Your task to perform on an android device: turn pop-ups on in chrome Image 0: 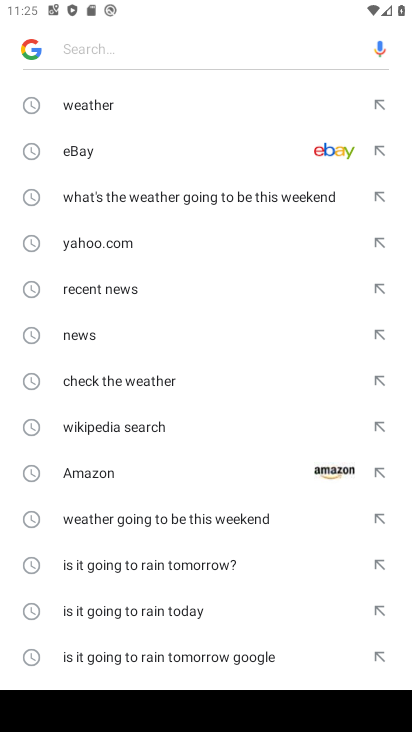
Step 0: press home button
Your task to perform on an android device: turn pop-ups on in chrome Image 1: 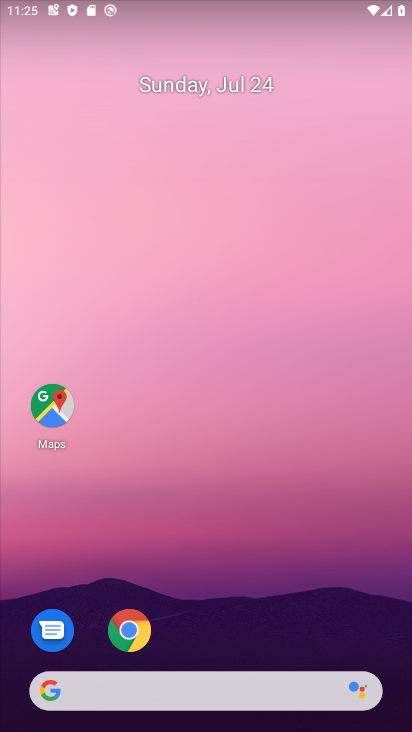
Step 1: click (131, 629)
Your task to perform on an android device: turn pop-ups on in chrome Image 2: 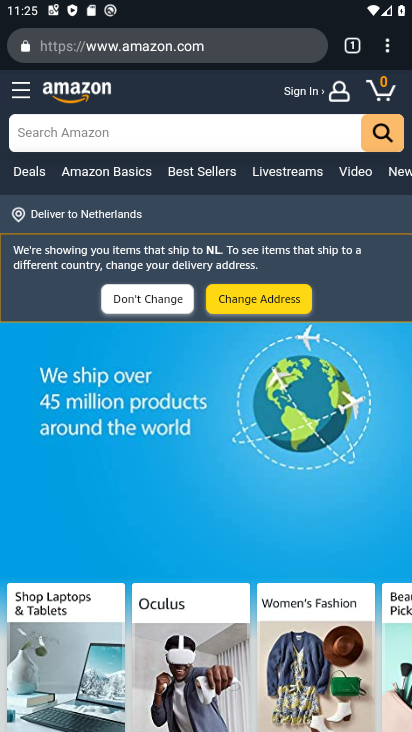
Step 2: click (390, 56)
Your task to perform on an android device: turn pop-ups on in chrome Image 3: 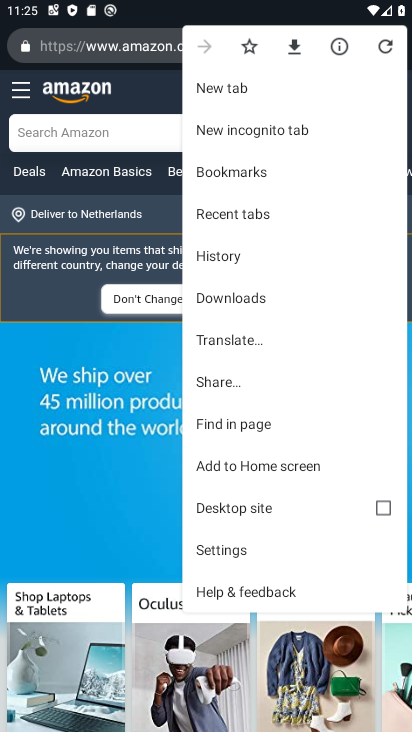
Step 3: click (212, 546)
Your task to perform on an android device: turn pop-ups on in chrome Image 4: 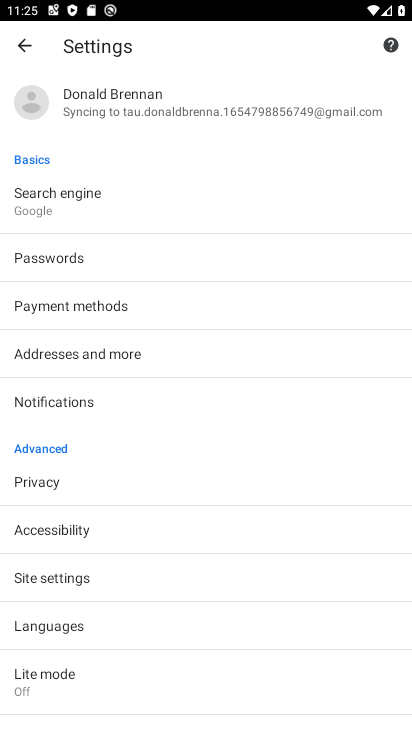
Step 4: click (69, 574)
Your task to perform on an android device: turn pop-ups on in chrome Image 5: 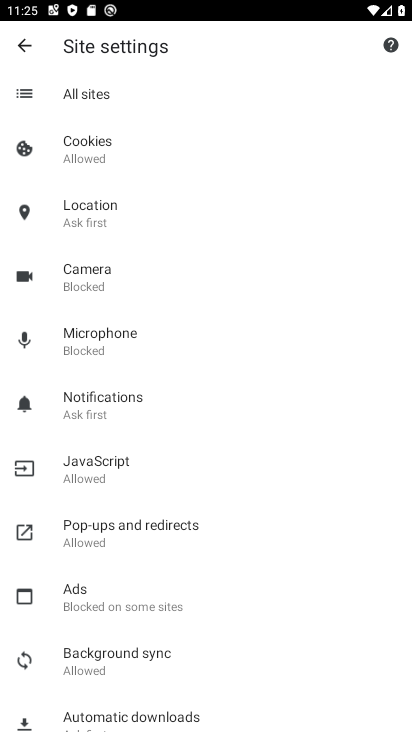
Step 5: click (95, 522)
Your task to perform on an android device: turn pop-ups on in chrome Image 6: 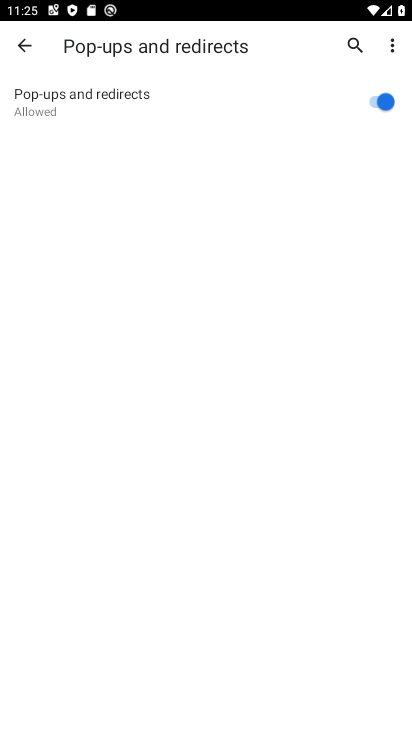
Step 6: click (379, 109)
Your task to perform on an android device: turn pop-ups on in chrome Image 7: 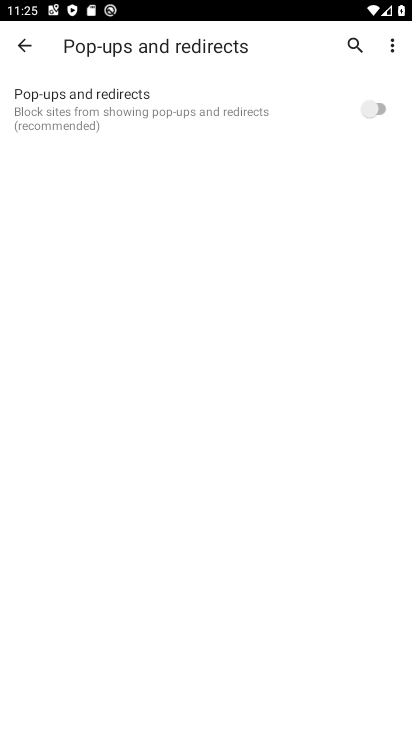
Step 7: task complete